Your task to perform on an android device: open wifi settings Image 0: 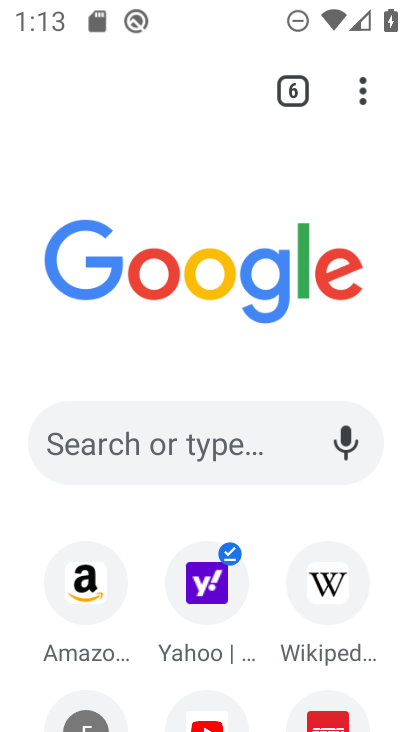
Step 0: press home button
Your task to perform on an android device: open wifi settings Image 1: 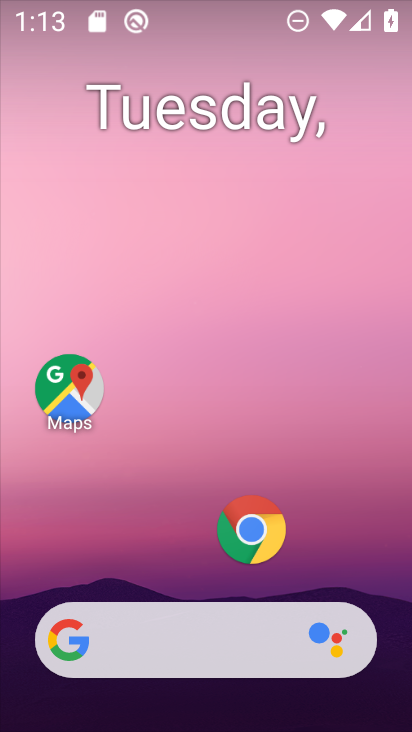
Step 1: drag from (178, 679) to (90, 325)
Your task to perform on an android device: open wifi settings Image 2: 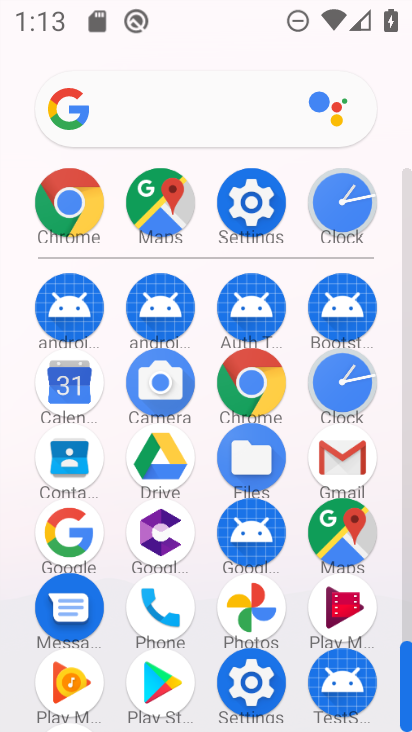
Step 2: click (235, 198)
Your task to perform on an android device: open wifi settings Image 3: 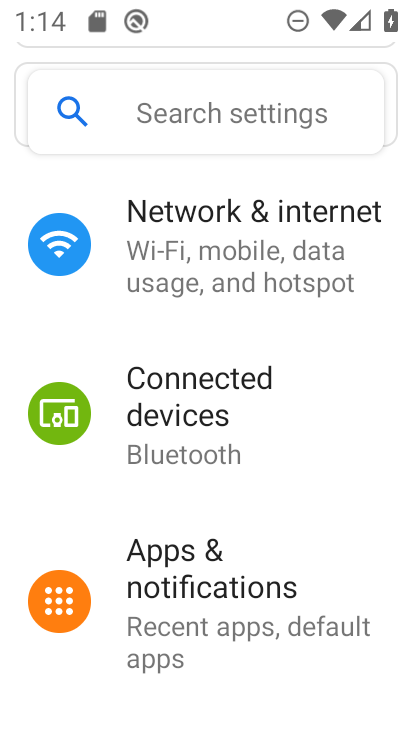
Step 3: click (194, 229)
Your task to perform on an android device: open wifi settings Image 4: 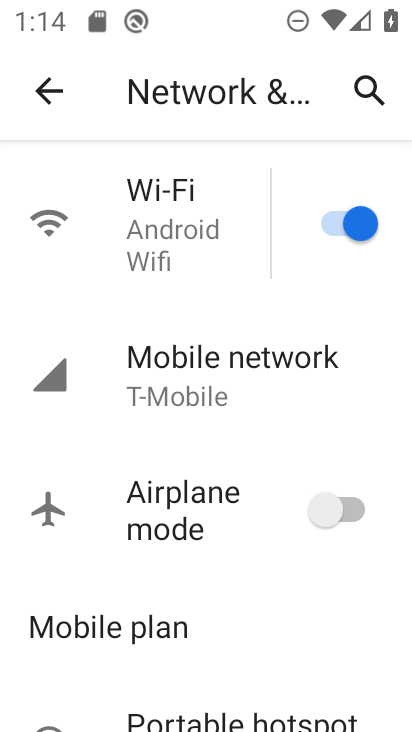
Step 4: click (172, 200)
Your task to perform on an android device: open wifi settings Image 5: 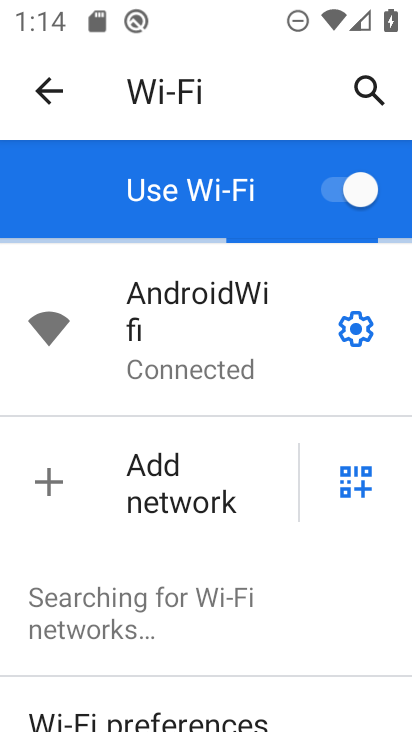
Step 5: task complete